Your task to perform on an android device: add a label to a message in the gmail app Image 0: 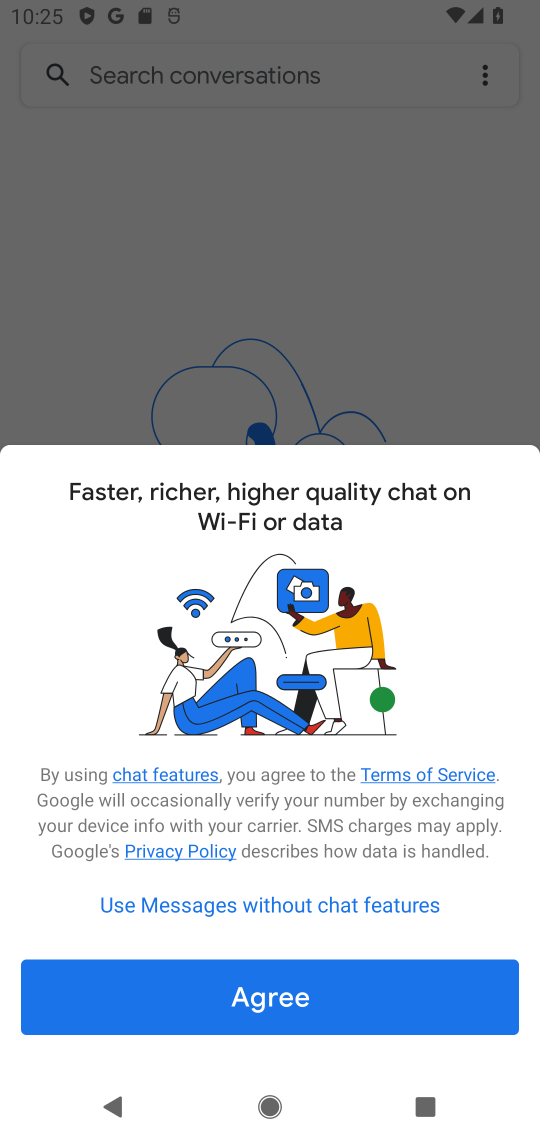
Step 0: press home button
Your task to perform on an android device: add a label to a message in the gmail app Image 1: 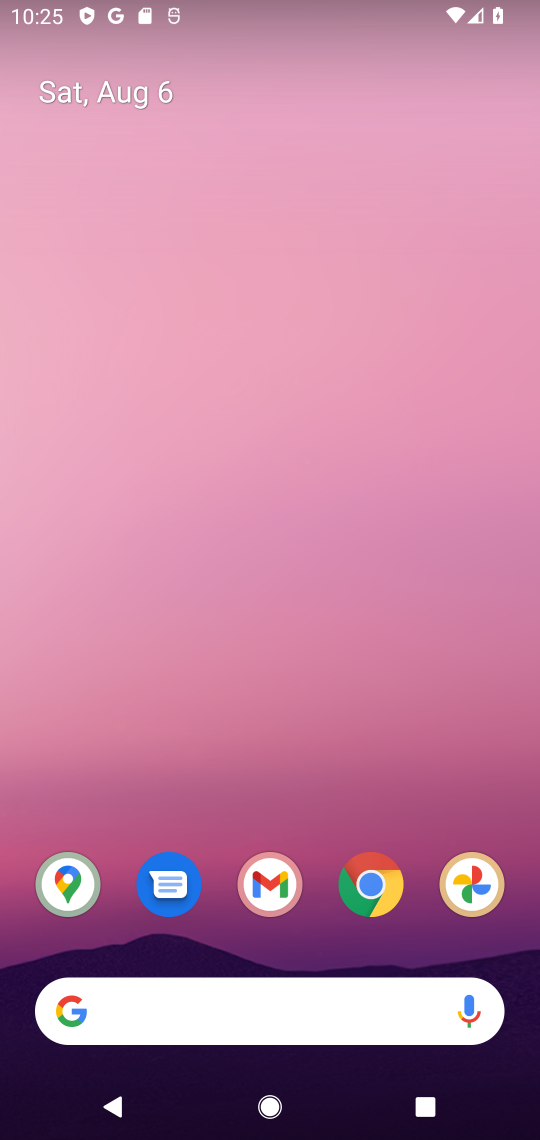
Step 1: click (268, 887)
Your task to perform on an android device: add a label to a message in the gmail app Image 2: 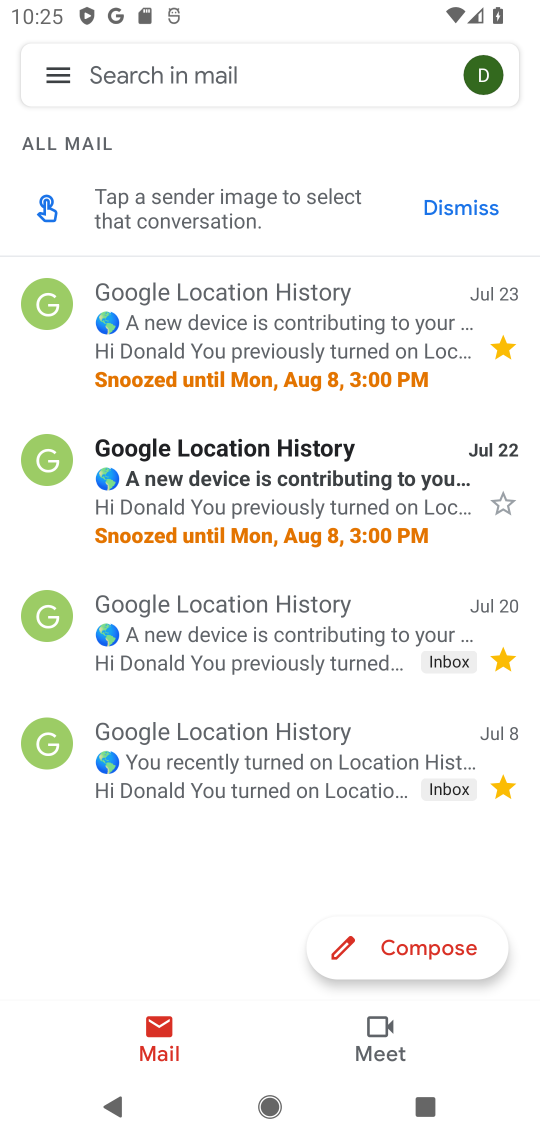
Step 2: click (49, 71)
Your task to perform on an android device: add a label to a message in the gmail app Image 3: 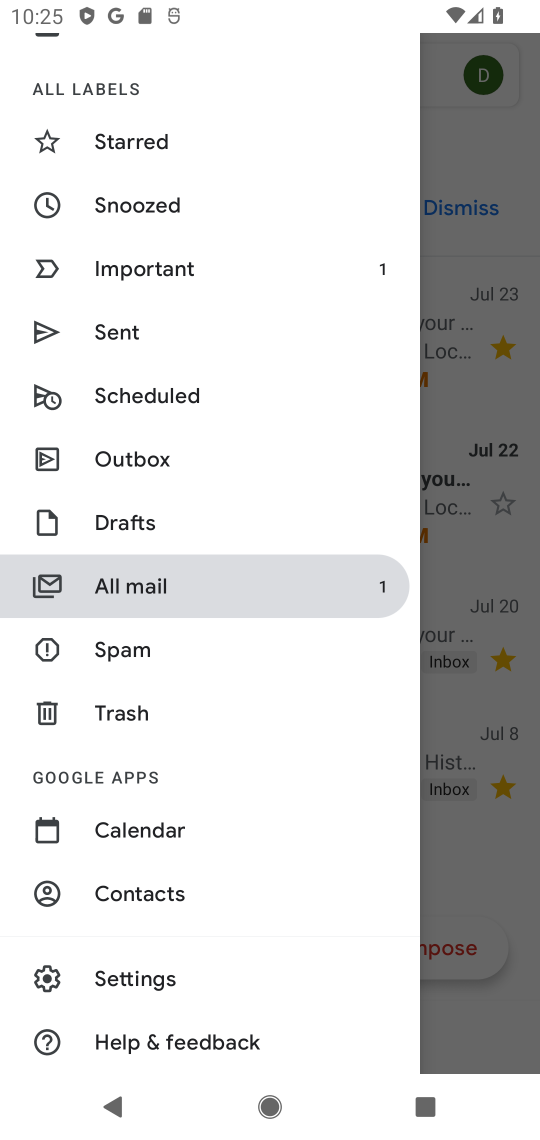
Step 3: click (191, 596)
Your task to perform on an android device: add a label to a message in the gmail app Image 4: 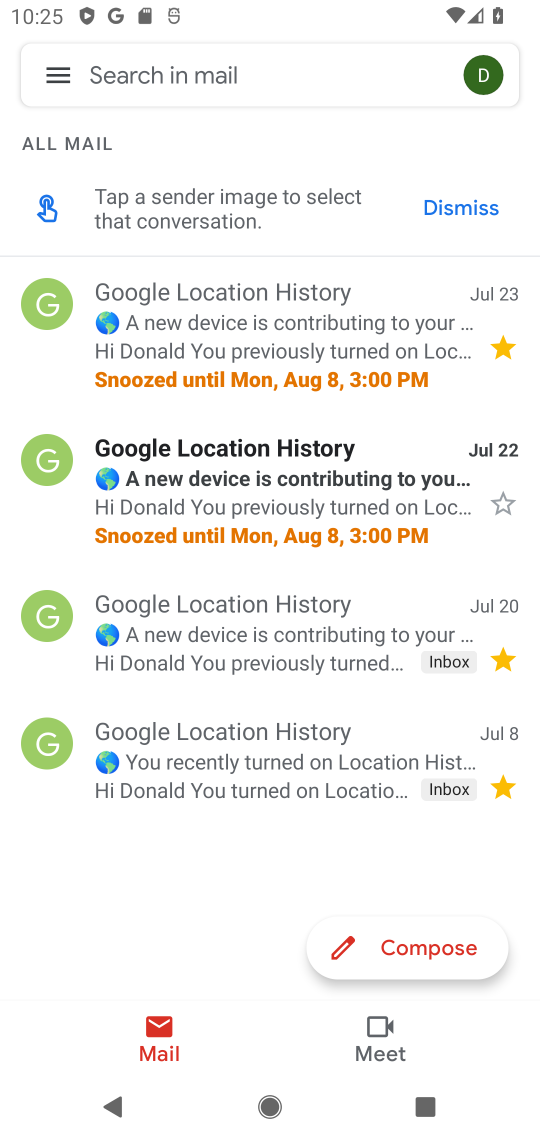
Step 4: click (369, 455)
Your task to perform on an android device: add a label to a message in the gmail app Image 5: 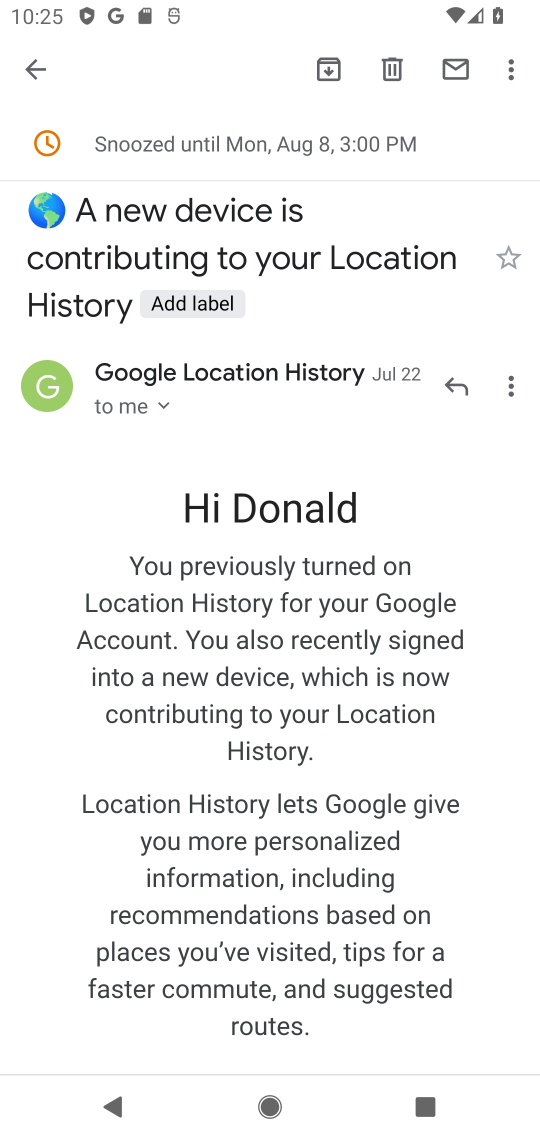
Step 5: click (502, 74)
Your task to perform on an android device: add a label to a message in the gmail app Image 6: 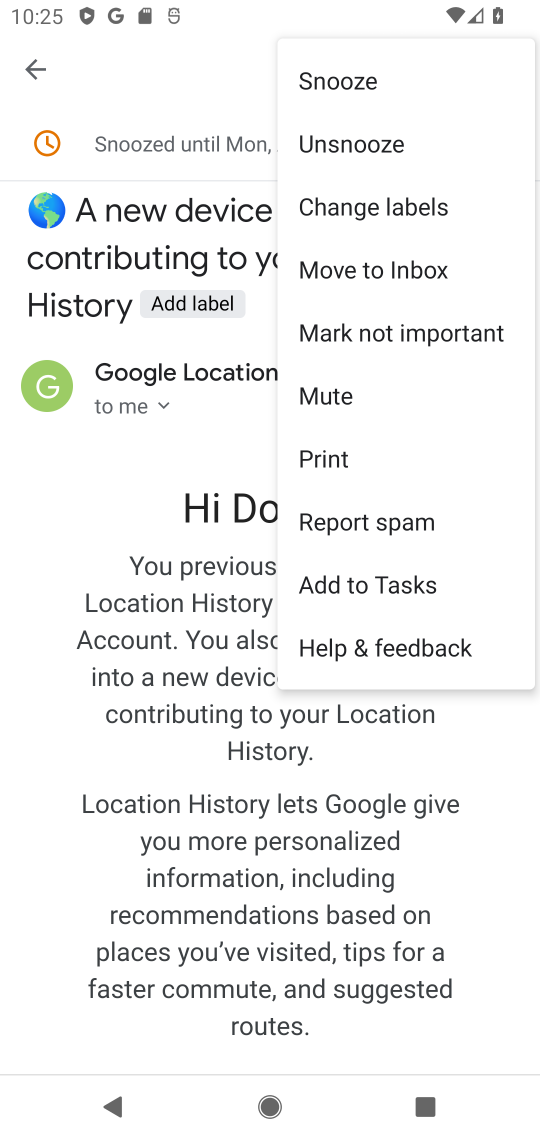
Step 6: click (350, 192)
Your task to perform on an android device: add a label to a message in the gmail app Image 7: 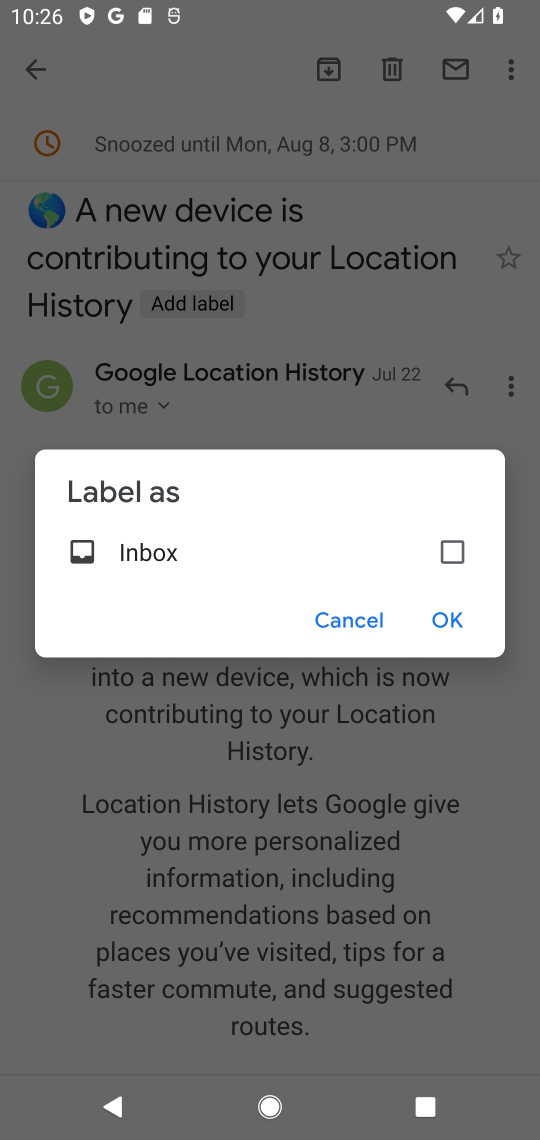
Step 7: click (457, 538)
Your task to perform on an android device: add a label to a message in the gmail app Image 8: 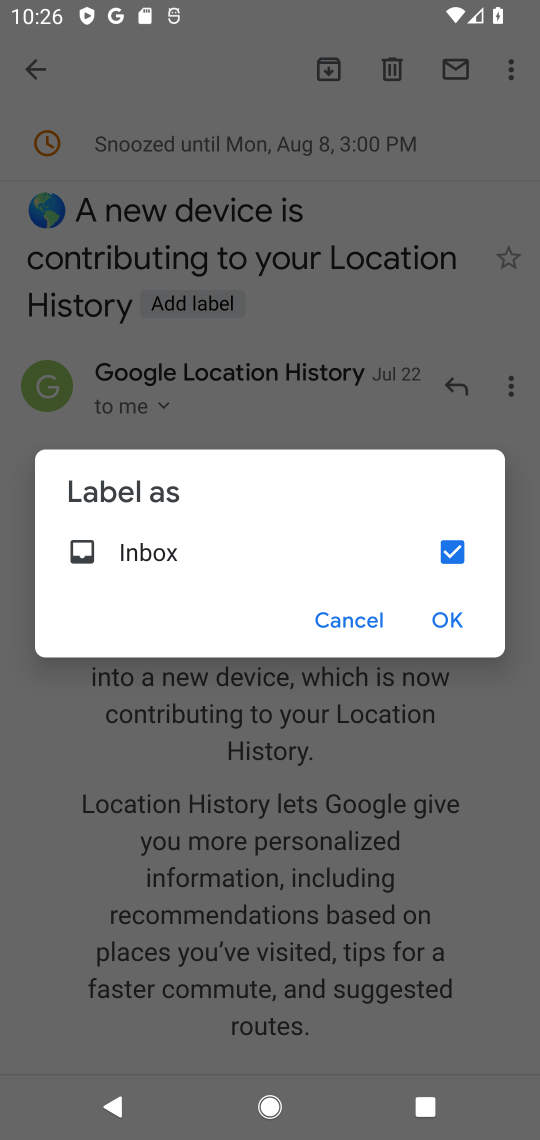
Step 8: click (445, 625)
Your task to perform on an android device: add a label to a message in the gmail app Image 9: 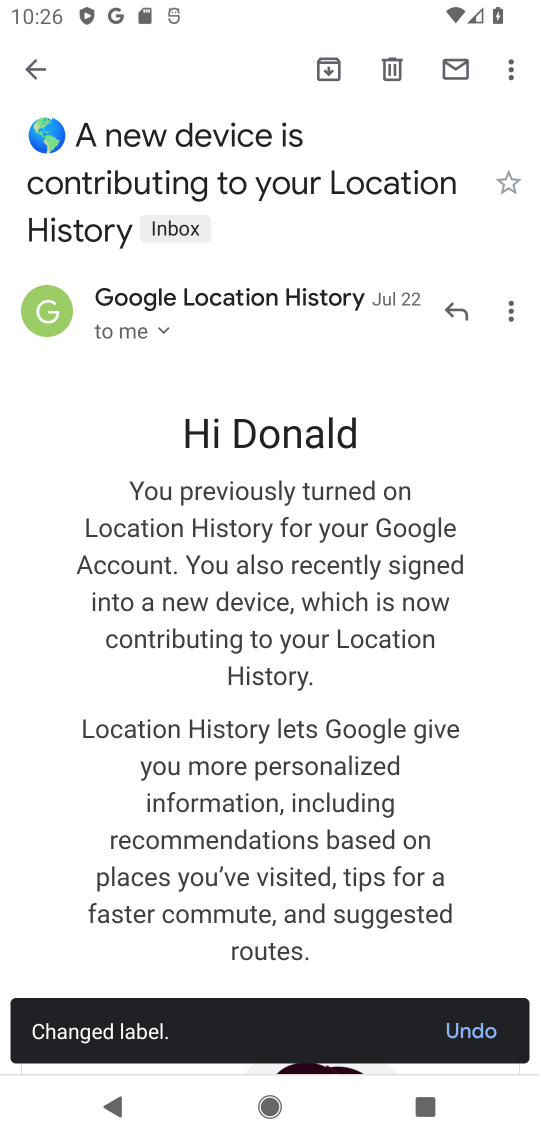
Step 9: task complete